Your task to perform on an android device: snooze an email in the gmail app Image 0: 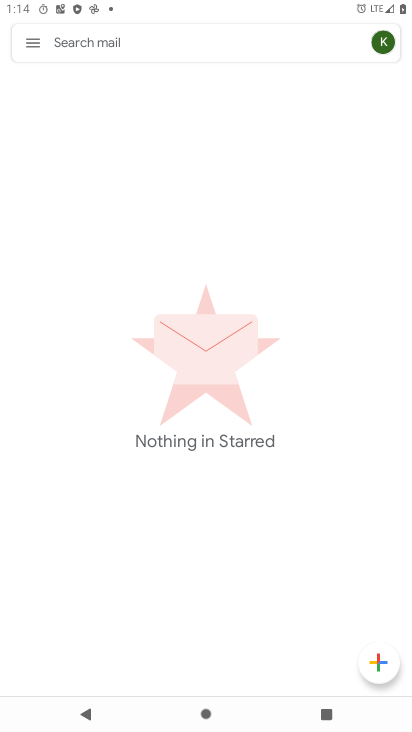
Step 0: press home button
Your task to perform on an android device: snooze an email in the gmail app Image 1: 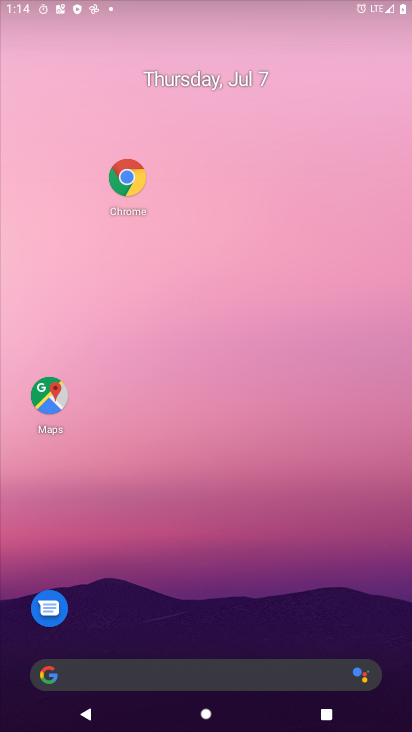
Step 1: drag from (211, 686) to (206, 405)
Your task to perform on an android device: snooze an email in the gmail app Image 2: 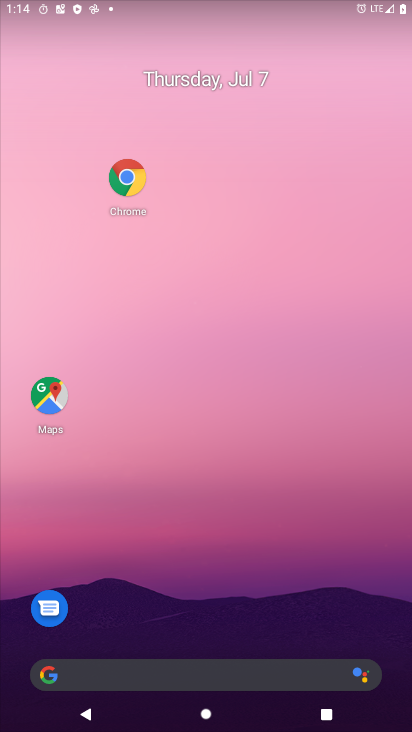
Step 2: drag from (216, 665) to (243, 288)
Your task to perform on an android device: snooze an email in the gmail app Image 3: 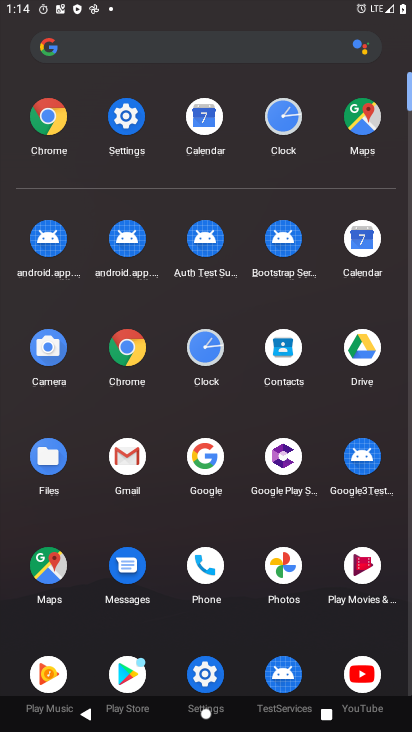
Step 3: click (127, 459)
Your task to perform on an android device: snooze an email in the gmail app Image 4: 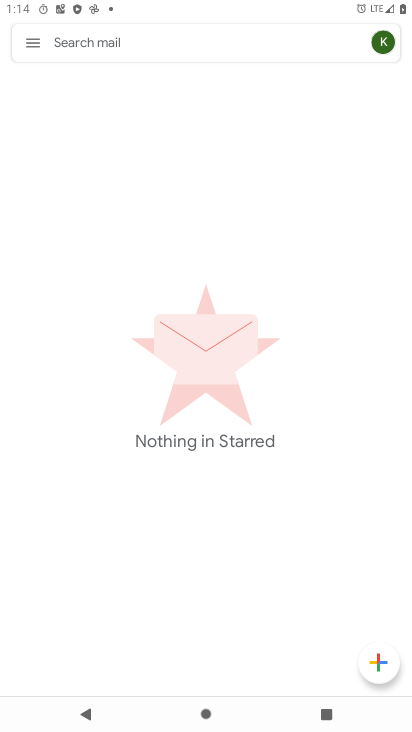
Step 4: click (36, 40)
Your task to perform on an android device: snooze an email in the gmail app Image 5: 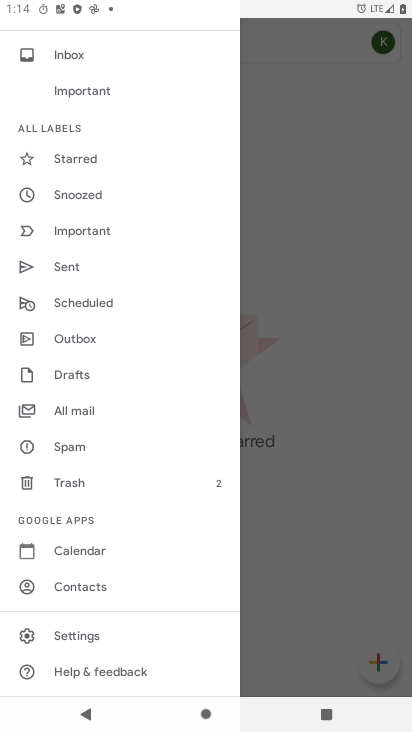
Step 5: click (278, 255)
Your task to perform on an android device: snooze an email in the gmail app Image 6: 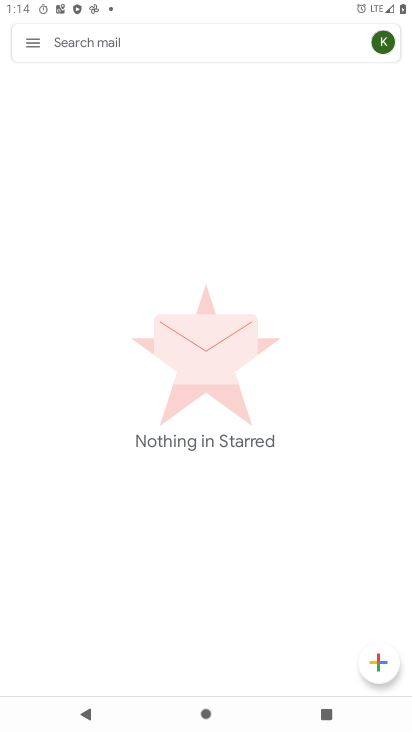
Step 6: task complete